Your task to perform on an android device: Go to notification settings Image 0: 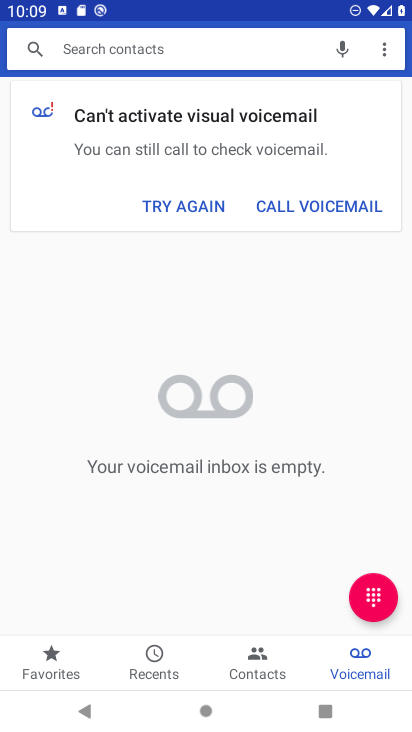
Step 0: press home button
Your task to perform on an android device: Go to notification settings Image 1: 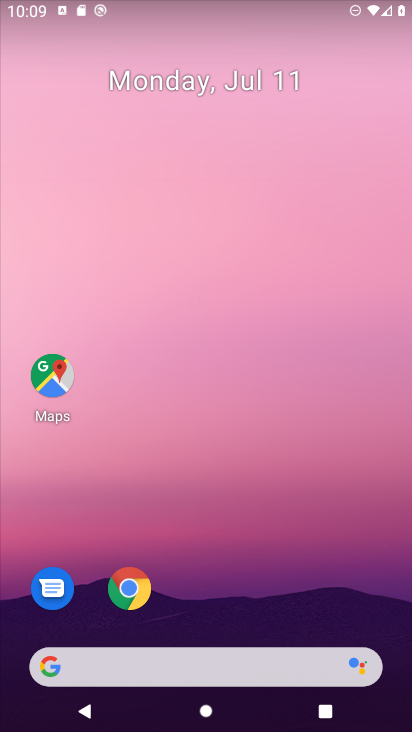
Step 1: drag from (389, 641) to (48, 62)
Your task to perform on an android device: Go to notification settings Image 2: 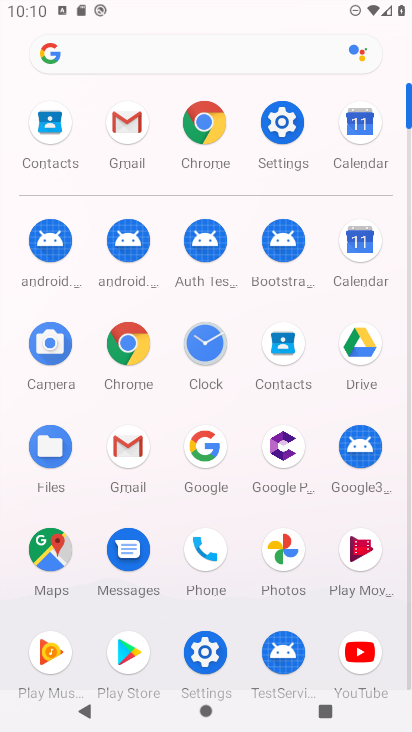
Step 2: click (279, 147)
Your task to perform on an android device: Go to notification settings Image 3: 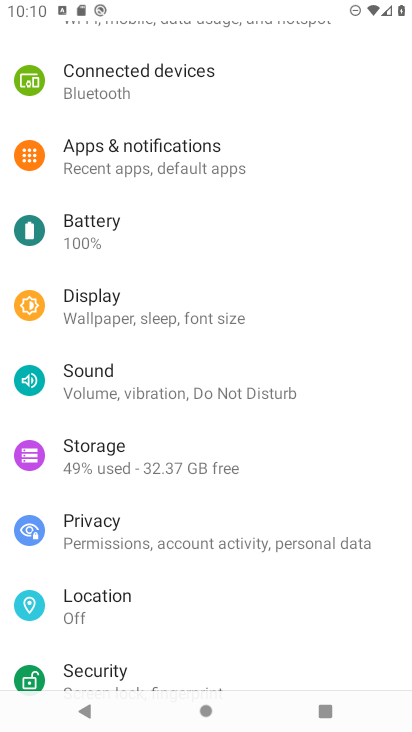
Step 3: click (119, 161)
Your task to perform on an android device: Go to notification settings Image 4: 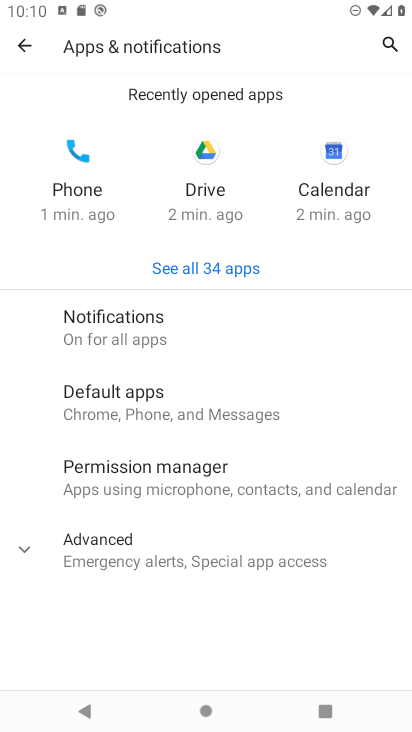
Step 4: click (208, 311)
Your task to perform on an android device: Go to notification settings Image 5: 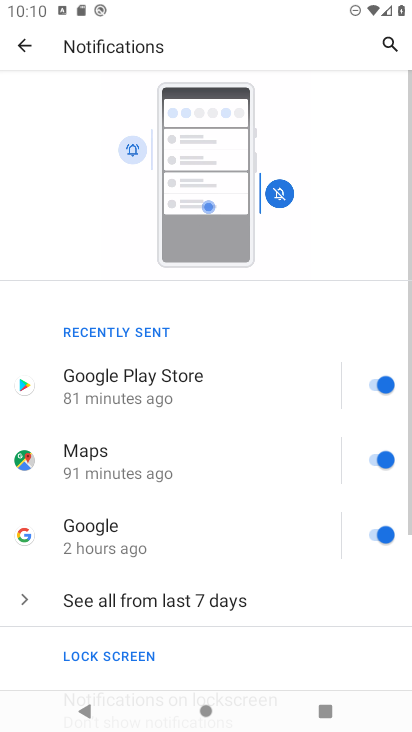
Step 5: task complete